Your task to perform on an android device: Check the news Image 0: 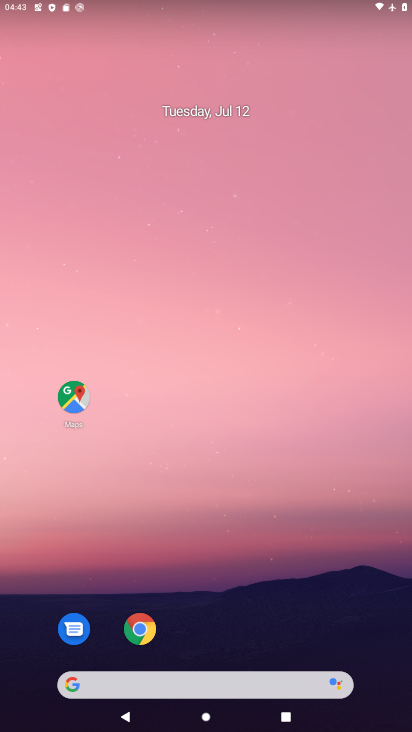
Step 0: press home button
Your task to perform on an android device: Check the news Image 1: 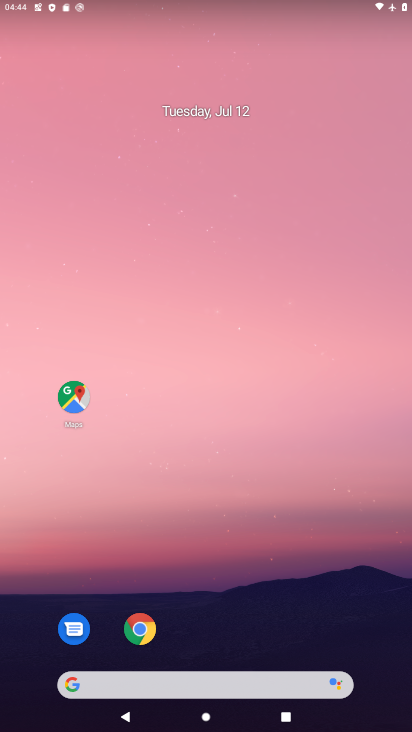
Step 1: drag from (287, 585) to (200, 100)
Your task to perform on an android device: Check the news Image 2: 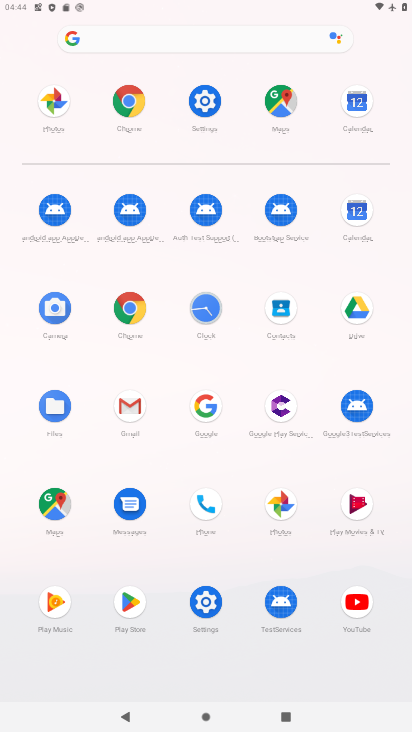
Step 2: click (127, 306)
Your task to perform on an android device: Check the news Image 3: 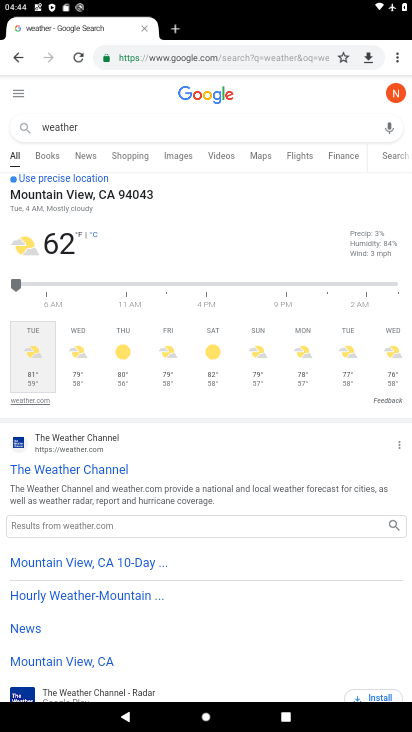
Step 3: click (225, 53)
Your task to perform on an android device: Check the news Image 4: 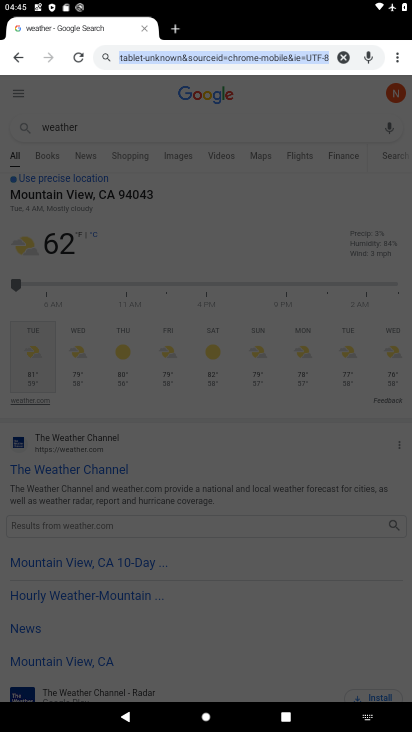
Step 4: type "news"
Your task to perform on an android device: Check the news Image 5: 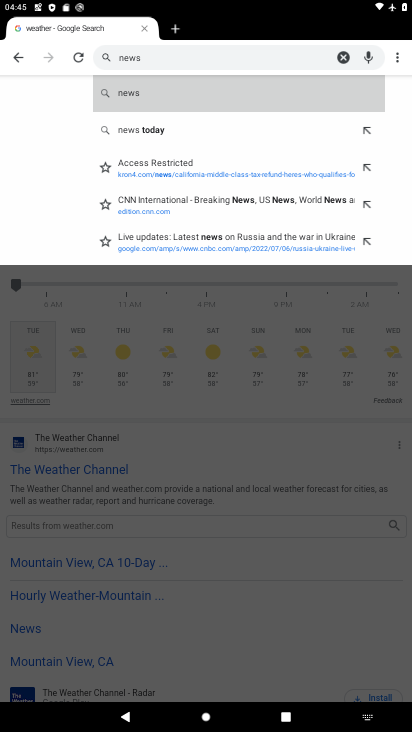
Step 5: click (153, 92)
Your task to perform on an android device: Check the news Image 6: 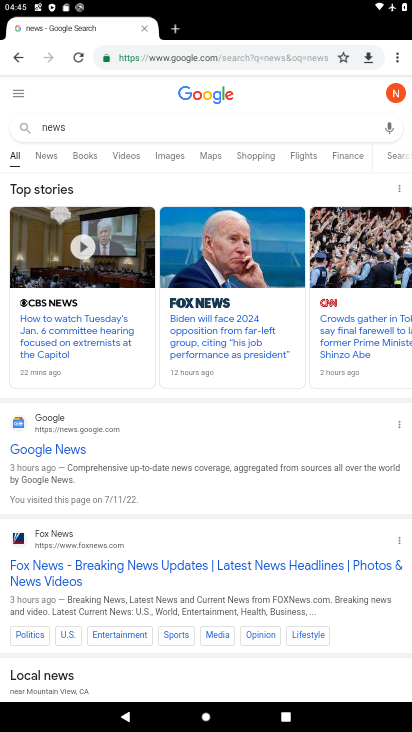
Step 6: click (33, 450)
Your task to perform on an android device: Check the news Image 7: 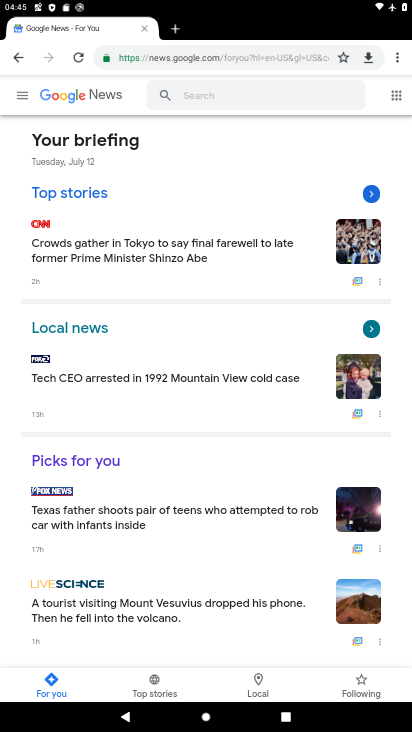
Step 7: task complete